Your task to perform on an android device: allow notifications from all sites in the chrome app Image 0: 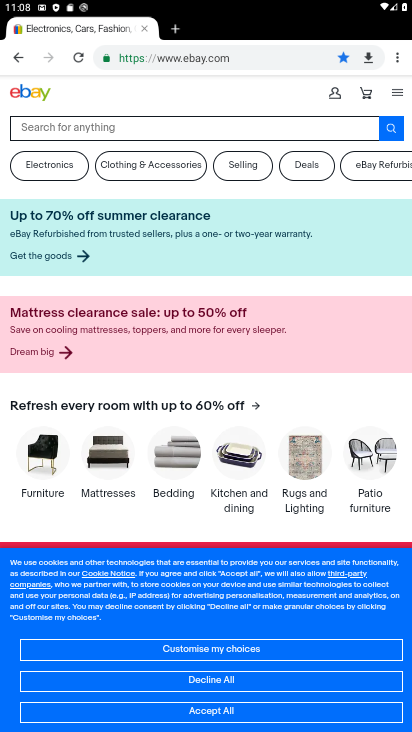
Step 0: press home button
Your task to perform on an android device: allow notifications from all sites in the chrome app Image 1: 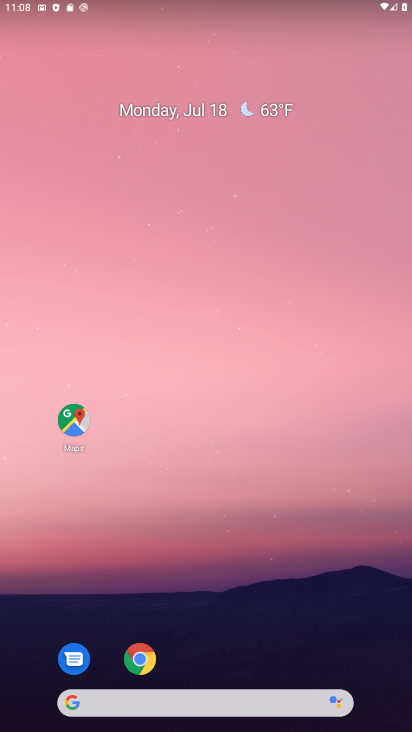
Step 1: drag from (210, 669) to (202, 54)
Your task to perform on an android device: allow notifications from all sites in the chrome app Image 2: 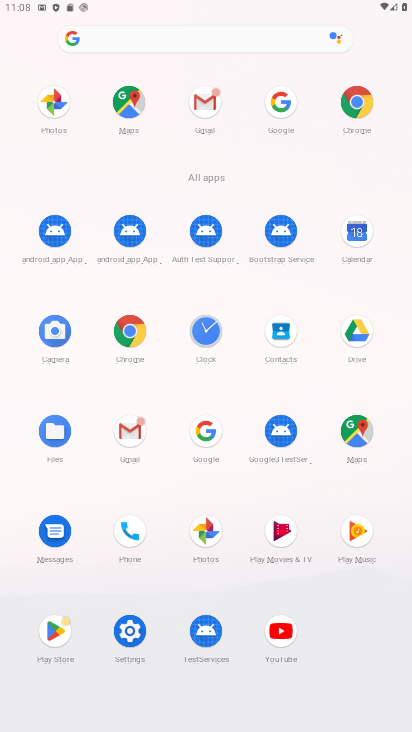
Step 2: click (115, 331)
Your task to perform on an android device: allow notifications from all sites in the chrome app Image 3: 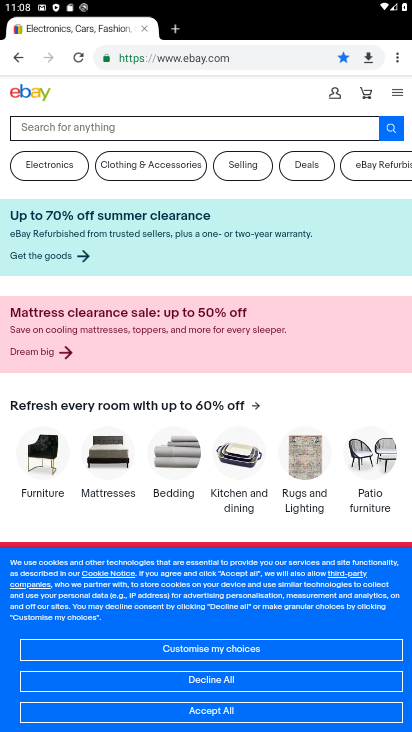
Step 3: drag from (397, 58) to (286, 416)
Your task to perform on an android device: allow notifications from all sites in the chrome app Image 4: 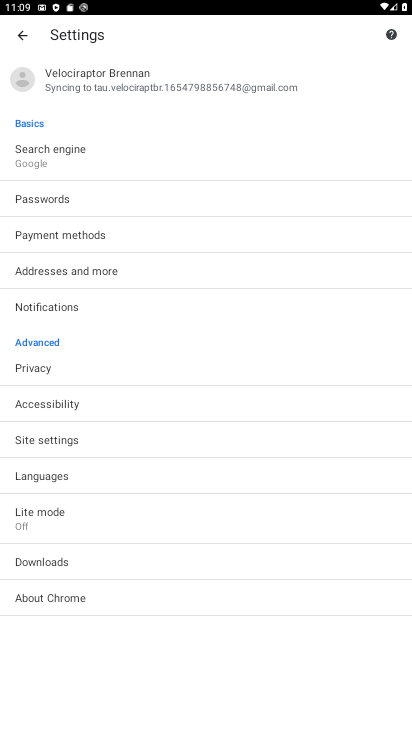
Step 4: click (54, 300)
Your task to perform on an android device: allow notifications from all sites in the chrome app Image 5: 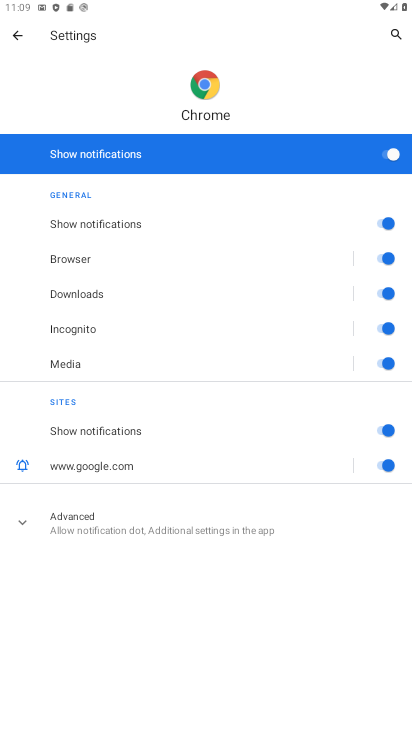
Step 5: click (24, 34)
Your task to perform on an android device: allow notifications from all sites in the chrome app Image 6: 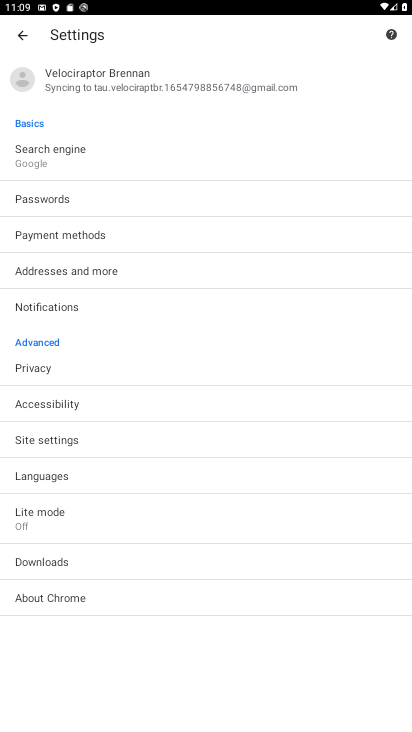
Step 6: click (81, 435)
Your task to perform on an android device: allow notifications from all sites in the chrome app Image 7: 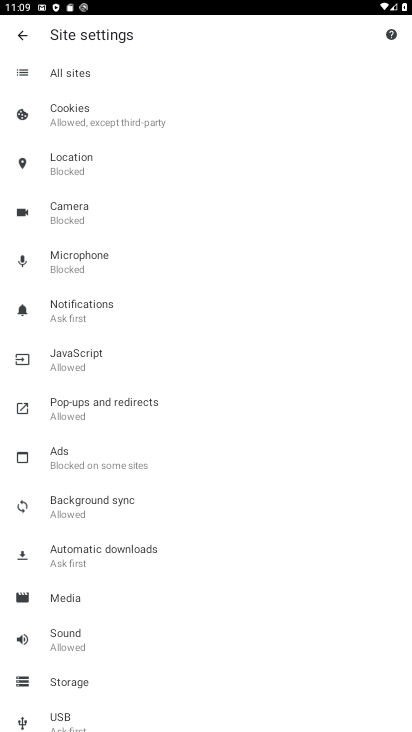
Step 7: click (88, 302)
Your task to perform on an android device: allow notifications from all sites in the chrome app Image 8: 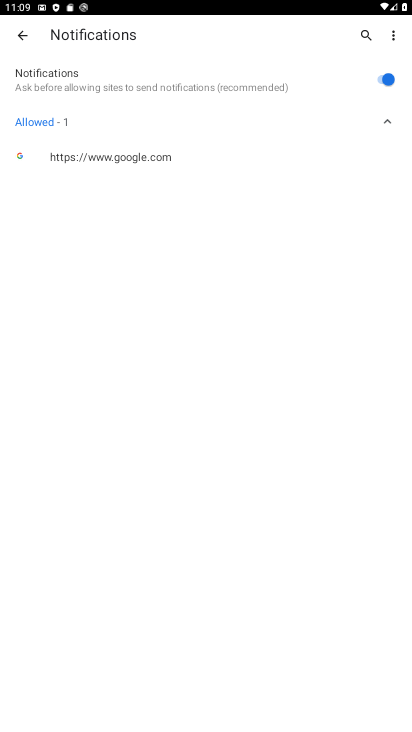
Step 8: click (385, 70)
Your task to perform on an android device: allow notifications from all sites in the chrome app Image 9: 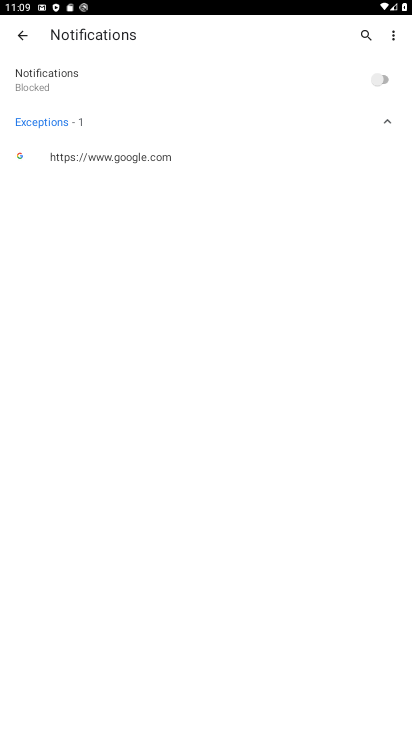
Step 9: task complete